Your task to perform on an android device: Open calendar and show me the third week of next month Image 0: 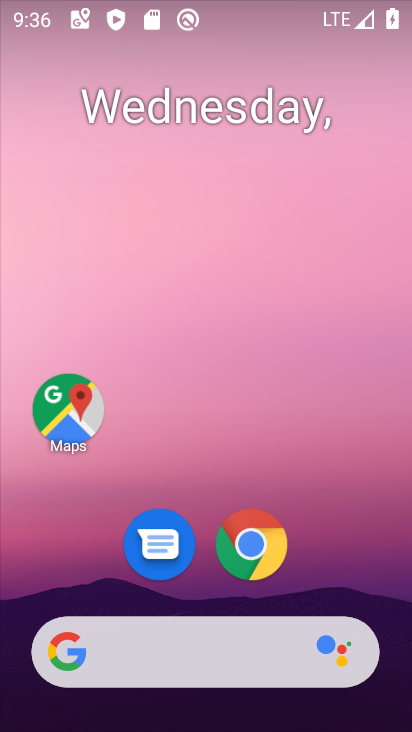
Step 0: click (206, 121)
Your task to perform on an android device: Open calendar and show me the third week of next month Image 1: 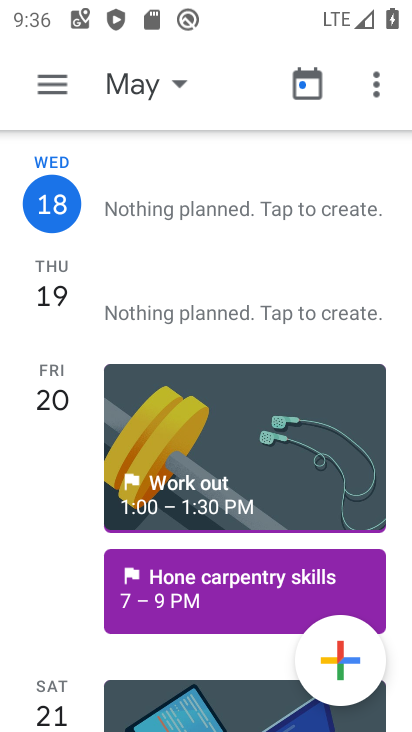
Step 1: click (154, 88)
Your task to perform on an android device: Open calendar and show me the third week of next month Image 2: 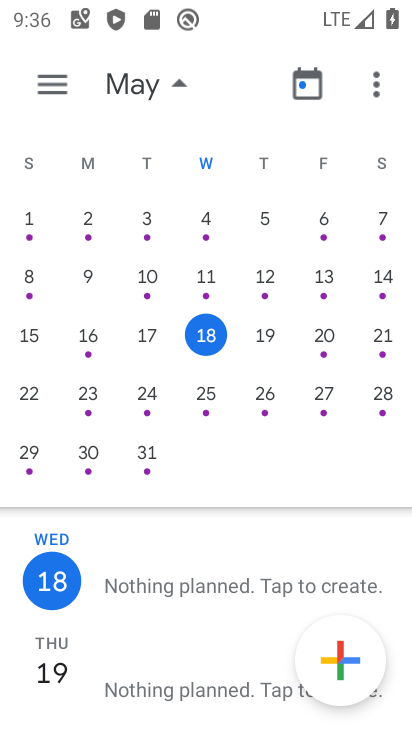
Step 2: drag from (375, 470) to (4, 472)
Your task to perform on an android device: Open calendar and show me the third week of next month Image 3: 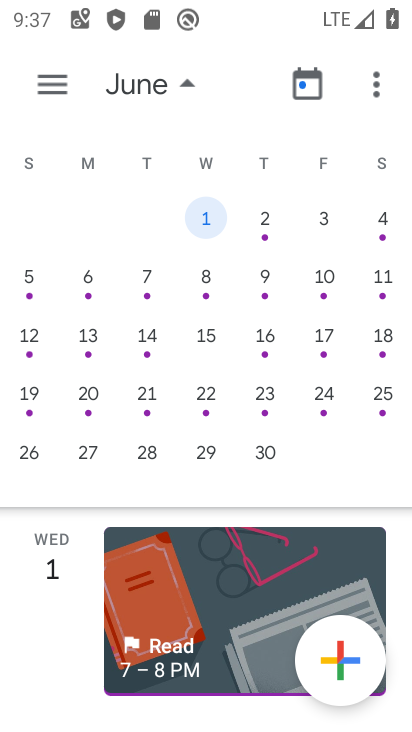
Step 3: click (208, 350)
Your task to perform on an android device: Open calendar and show me the third week of next month Image 4: 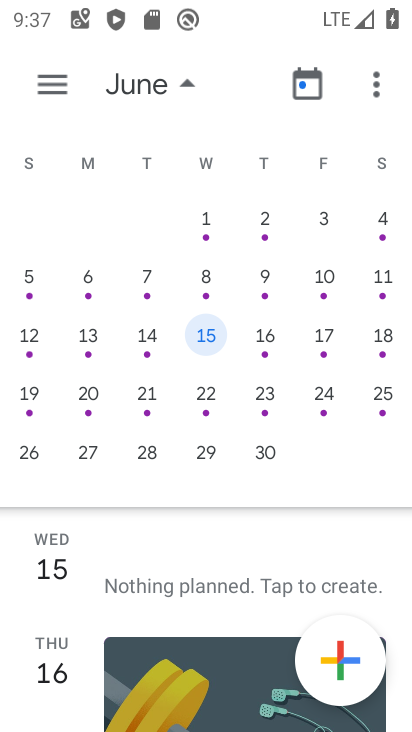
Step 4: task complete